Your task to perform on an android device: turn on translation in the chrome app Image 0: 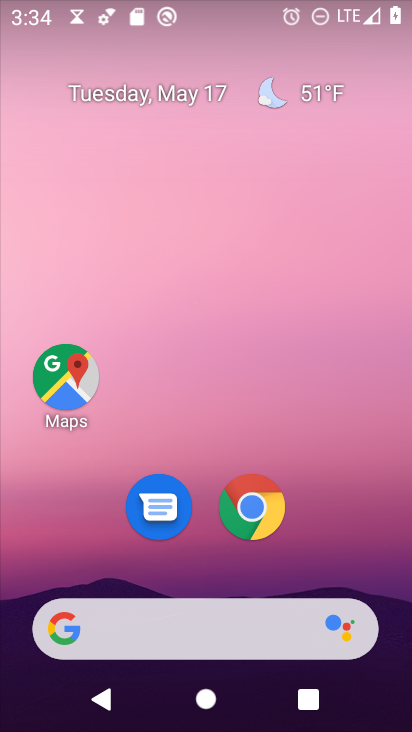
Step 0: click (254, 510)
Your task to perform on an android device: turn on translation in the chrome app Image 1: 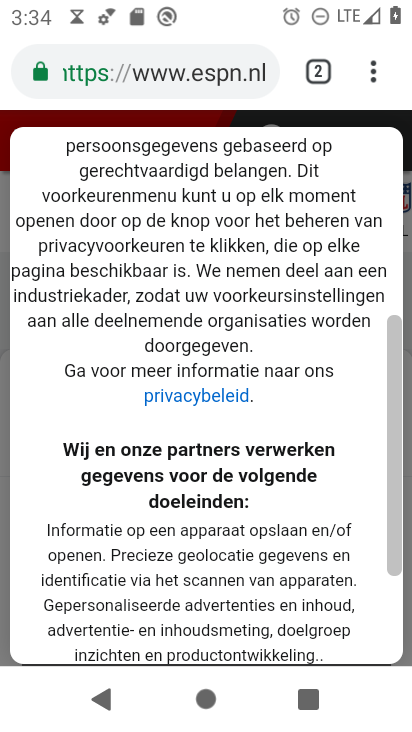
Step 1: click (365, 73)
Your task to perform on an android device: turn on translation in the chrome app Image 2: 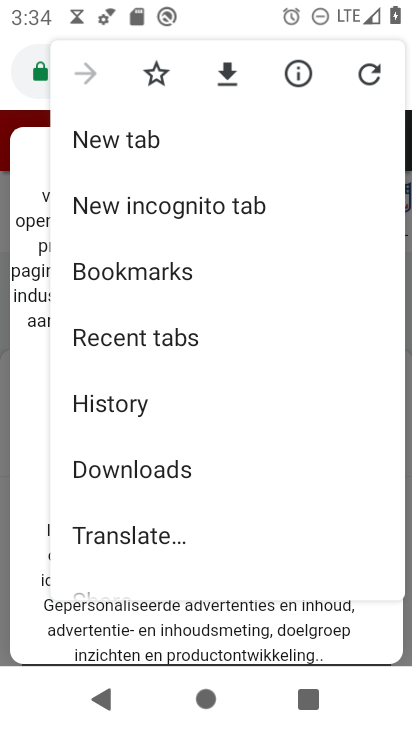
Step 2: drag from (202, 535) to (192, 333)
Your task to perform on an android device: turn on translation in the chrome app Image 3: 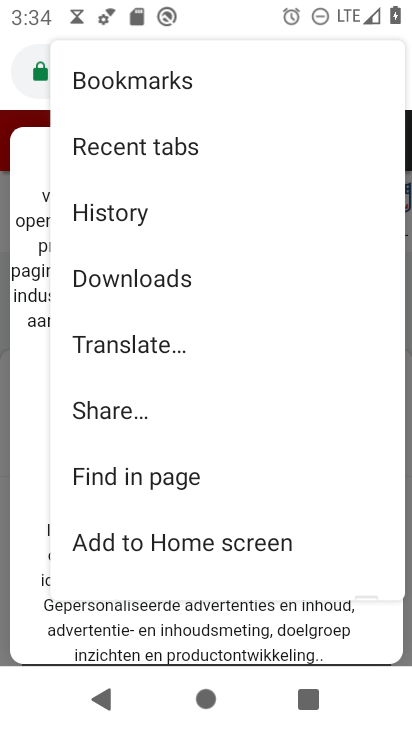
Step 3: drag from (155, 513) to (134, 335)
Your task to perform on an android device: turn on translation in the chrome app Image 4: 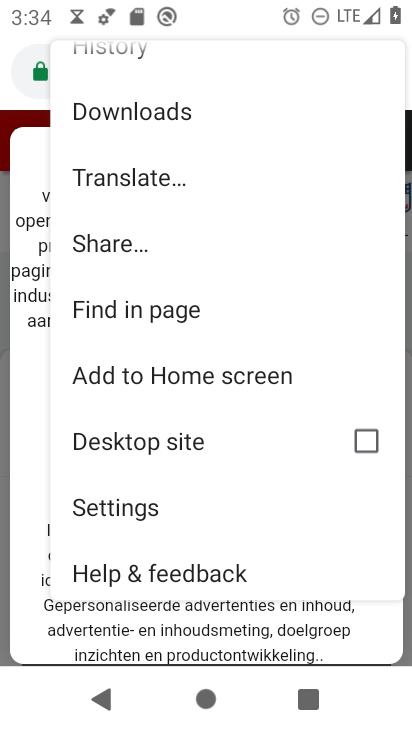
Step 4: click (140, 510)
Your task to perform on an android device: turn on translation in the chrome app Image 5: 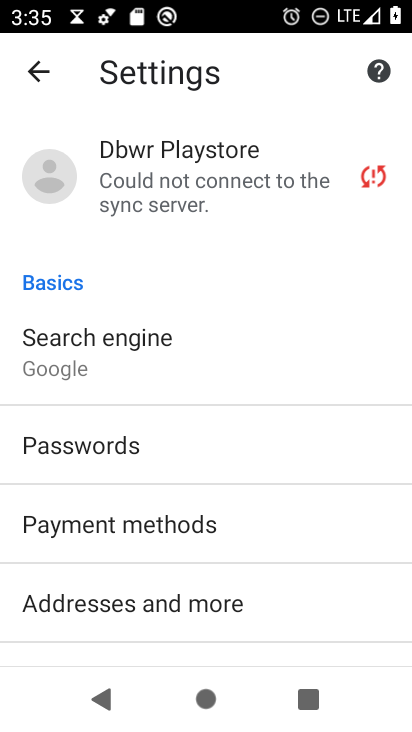
Step 5: drag from (104, 619) to (70, 370)
Your task to perform on an android device: turn on translation in the chrome app Image 6: 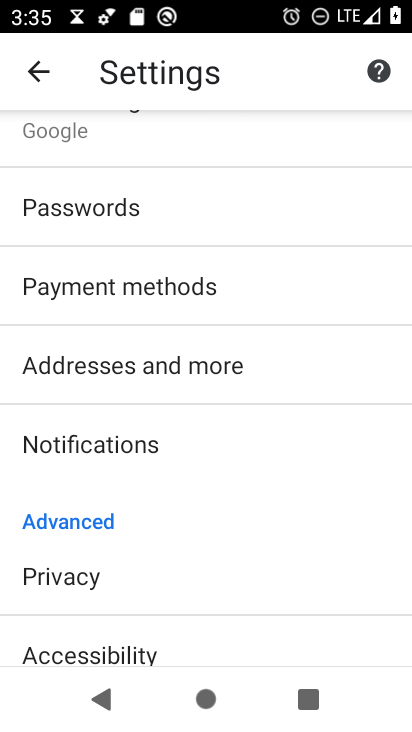
Step 6: drag from (81, 644) to (87, 441)
Your task to perform on an android device: turn on translation in the chrome app Image 7: 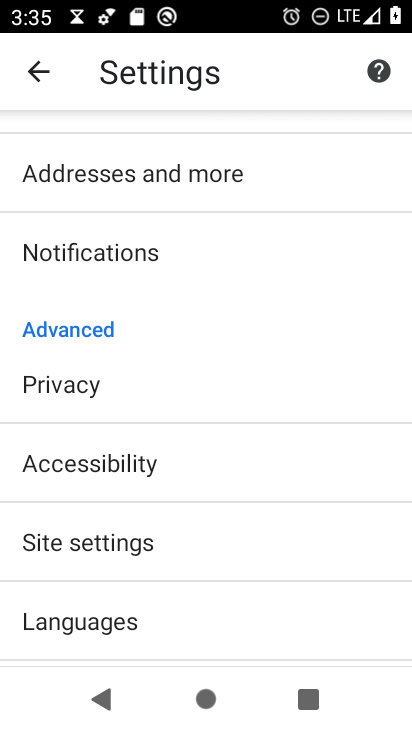
Step 7: click (101, 614)
Your task to perform on an android device: turn on translation in the chrome app Image 8: 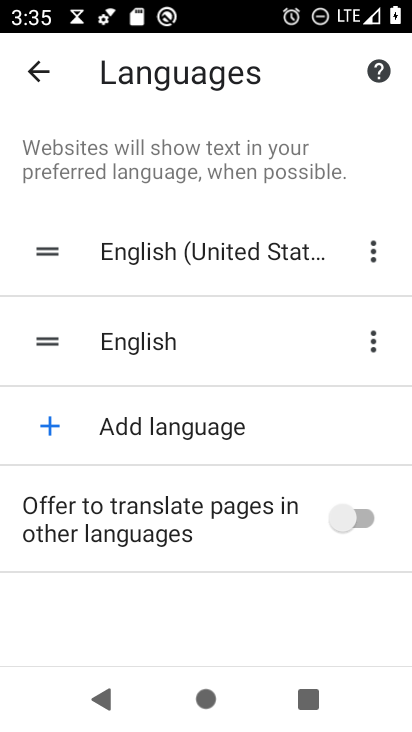
Step 8: drag from (166, 608) to (138, 520)
Your task to perform on an android device: turn on translation in the chrome app Image 9: 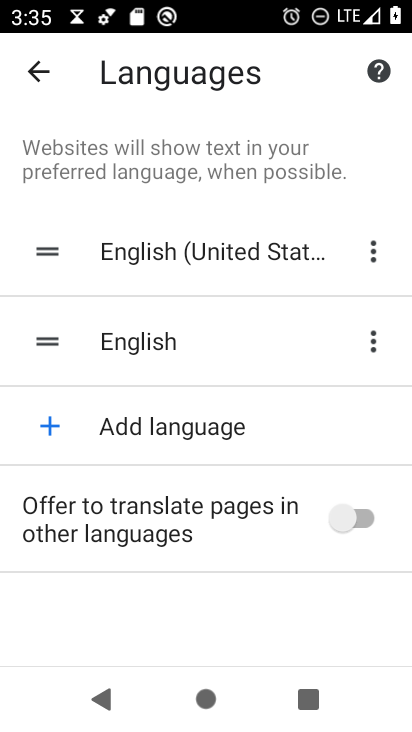
Step 9: click (359, 518)
Your task to perform on an android device: turn on translation in the chrome app Image 10: 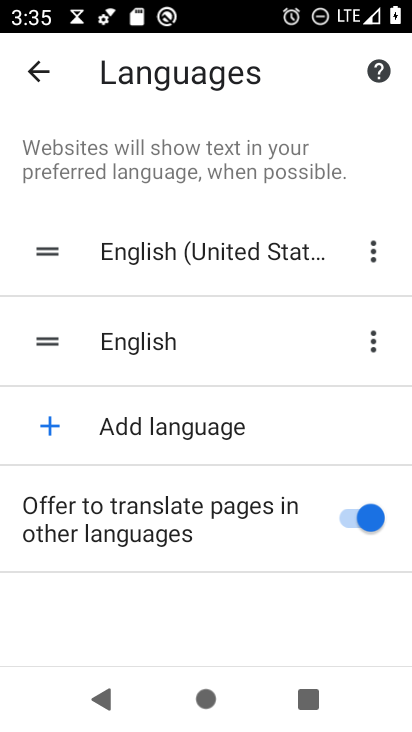
Step 10: task complete